Your task to perform on an android device: Open Google Image 0: 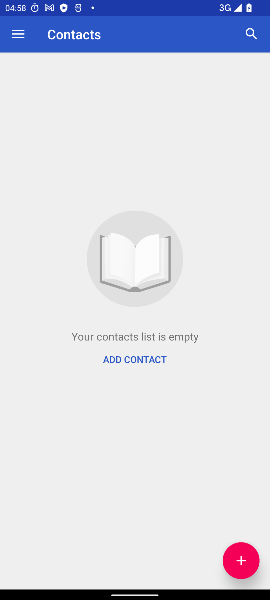
Step 0: press home button
Your task to perform on an android device: Open Google Image 1: 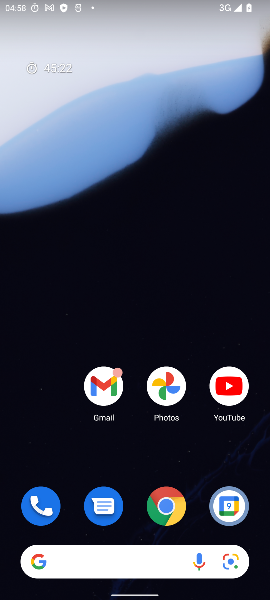
Step 1: drag from (108, 457) to (119, 7)
Your task to perform on an android device: Open Google Image 2: 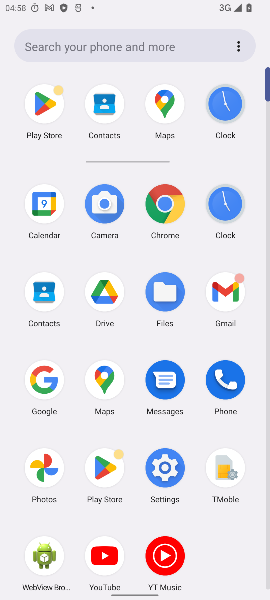
Step 2: click (45, 379)
Your task to perform on an android device: Open Google Image 3: 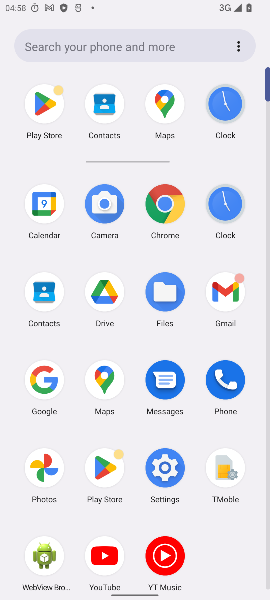
Step 3: click (45, 379)
Your task to perform on an android device: Open Google Image 4: 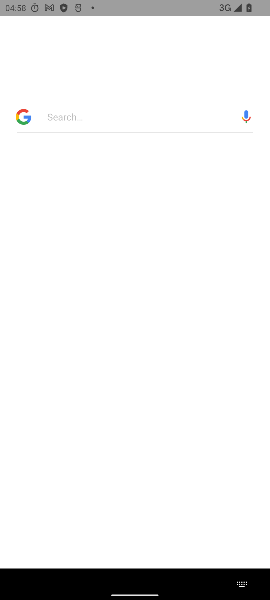
Step 4: task complete